Your task to perform on an android device: toggle sleep mode Image 0: 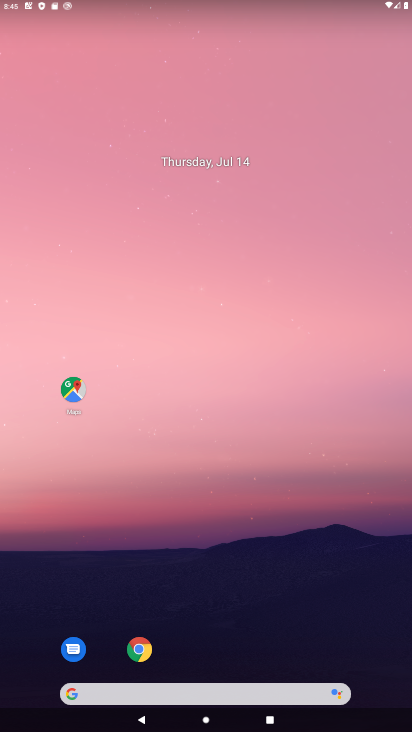
Step 0: click (65, 391)
Your task to perform on an android device: toggle sleep mode Image 1: 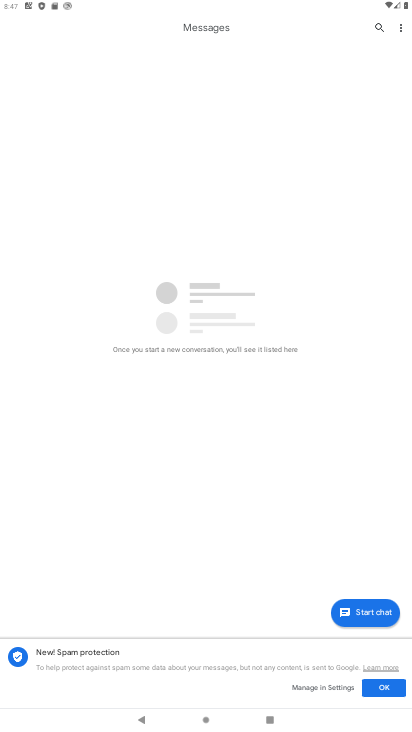
Step 1: press home button
Your task to perform on an android device: toggle sleep mode Image 2: 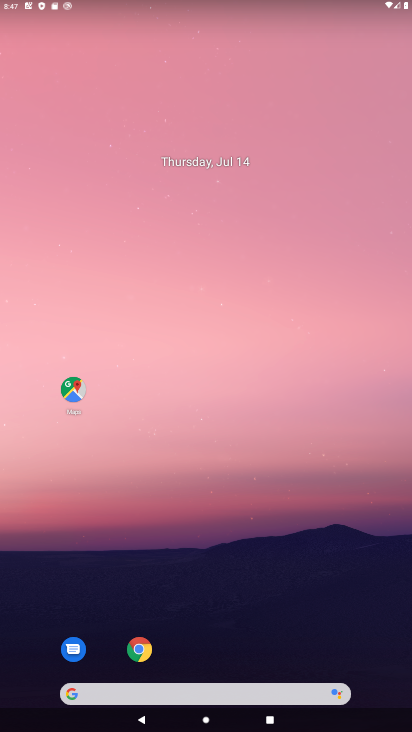
Step 2: drag from (131, 502) to (219, 5)
Your task to perform on an android device: toggle sleep mode Image 3: 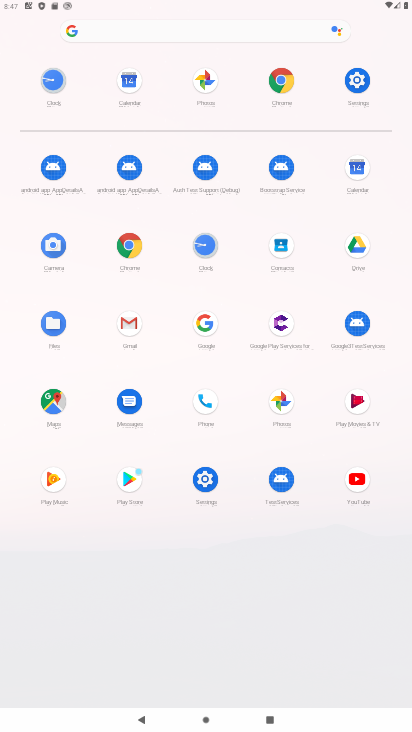
Step 3: click (360, 76)
Your task to perform on an android device: toggle sleep mode Image 4: 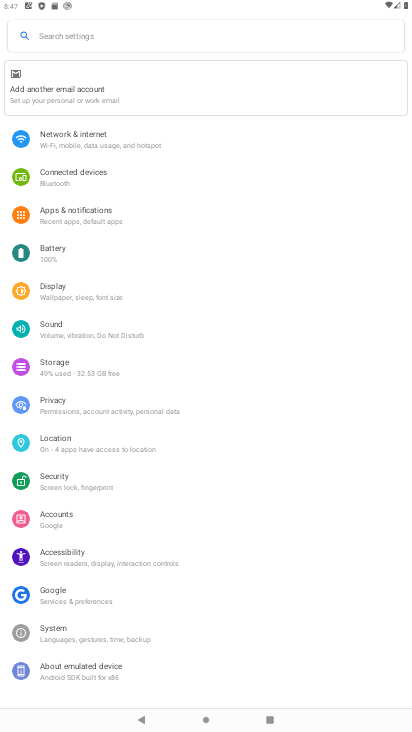
Step 4: click (141, 279)
Your task to perform on an android device: toggle sleep mode Image 5: 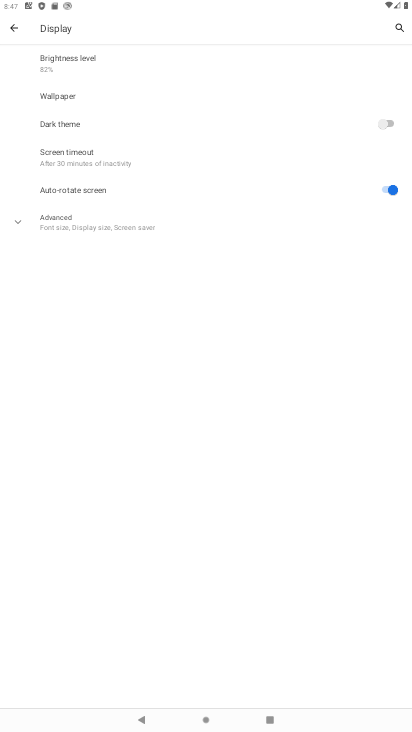
Step 5: task complete